Your task to perform on an android device: Go to settings Image 0: 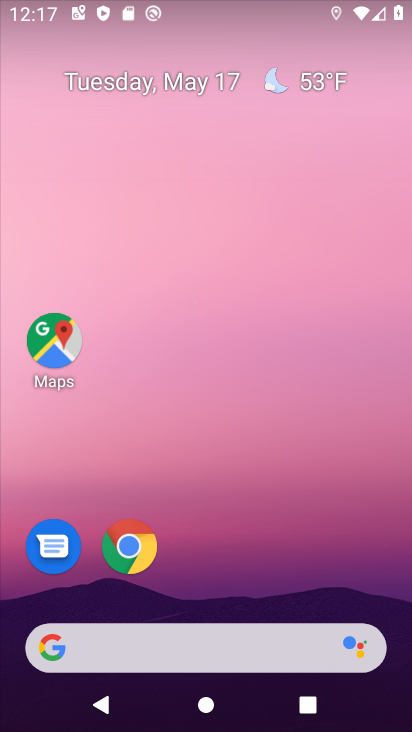
Step 0: drag from (242, 536) to (280, 66)
Your task to perform on an android device: Go to settings Image 1: 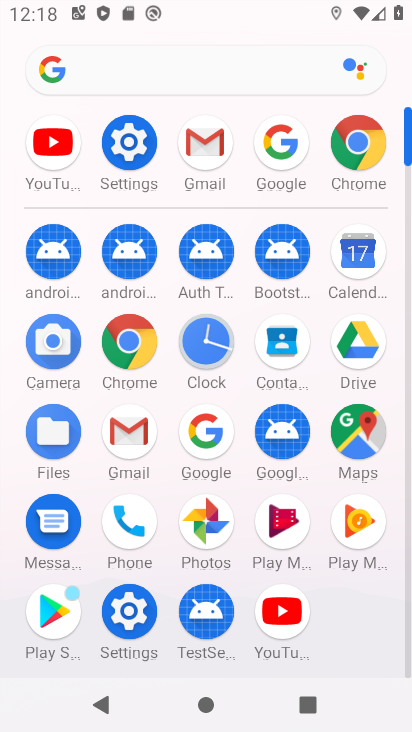
Step 1: click (125, 145)
Your task to perform on an android device: Go to settings Image 2: 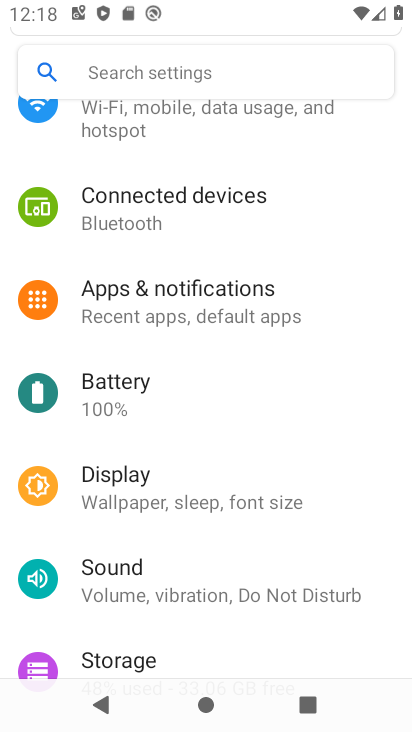
Step 2: task complete